Your task to perform on an android device: stop showing notifications on the lock screen Image 0: 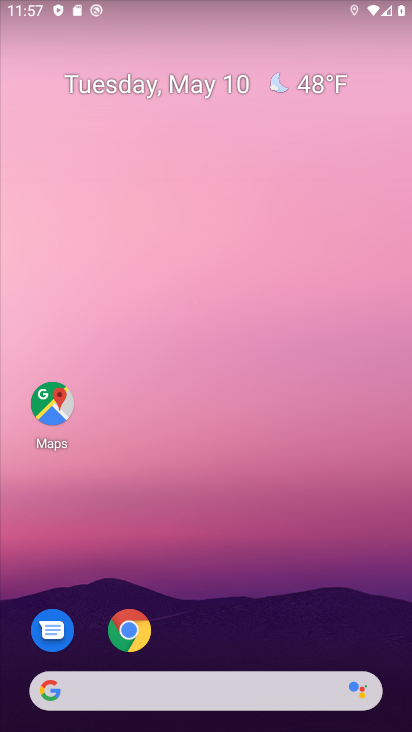
Step 0: drag from (228, 675) to (134, 9)
Your task to perform on an android device: stop showing notifications on the lock screen Image 1: 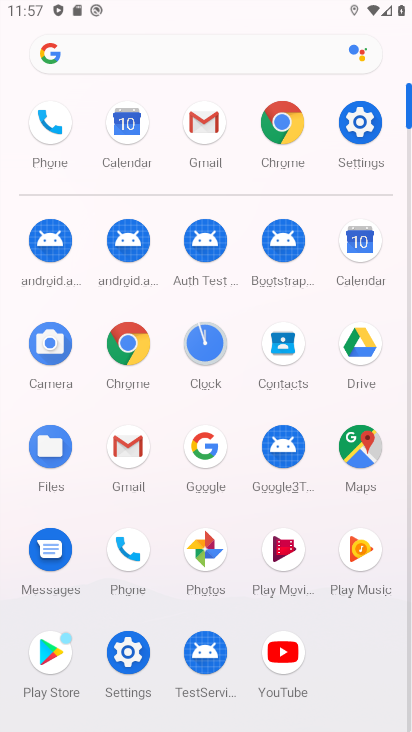
Step 1: click (355, 131)
Your task to perform on an android device: stop showing notifications on the lock screen Image 2: 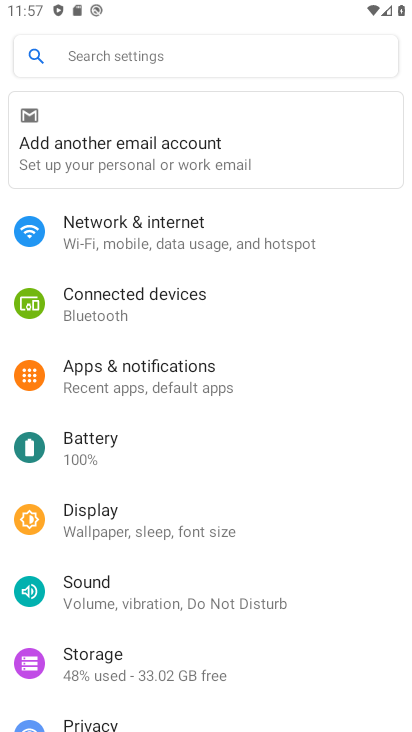
Step 2: click (196, 387)
Your task to perform on an android device: stop showing notifications on the lock screen Image 3: 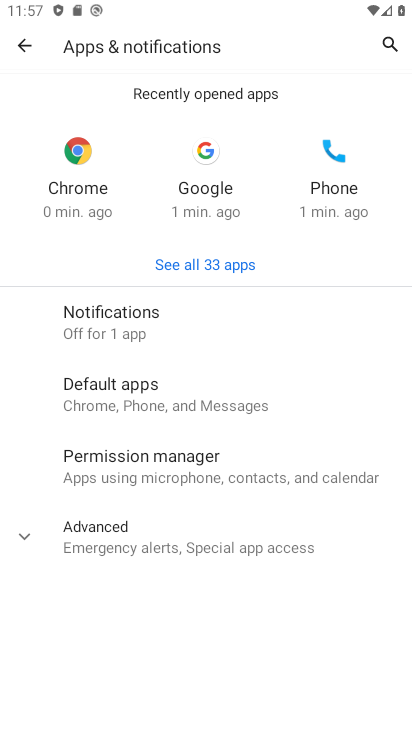
Step 3: click (134, 340)
Your task to perform on an android device: stop showing notifications on the lock screen Image 4: 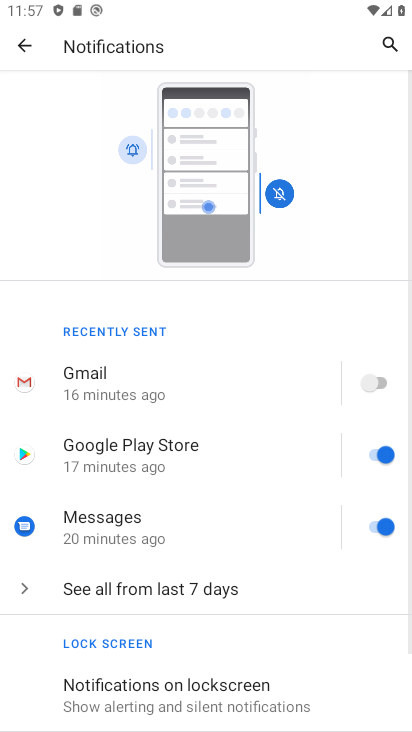
Step 4: click (192, 682)
Your task to perform on an android device: stop showing notifications on the lock screen Image 5: 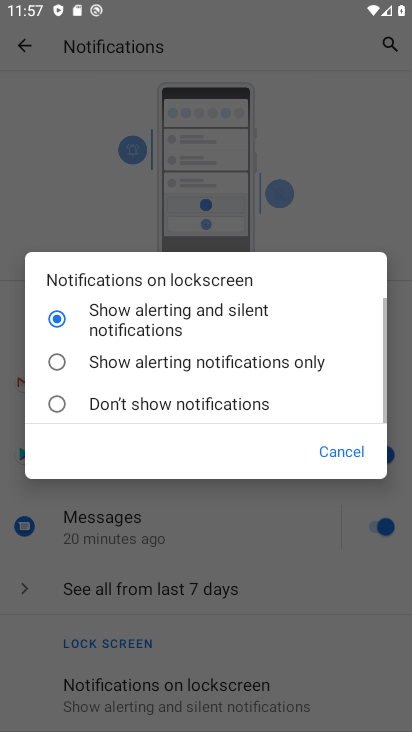
Step 5: click (129, 412)
Your task to perform on an android device: stop showing notifications on the lock screen Image 6: 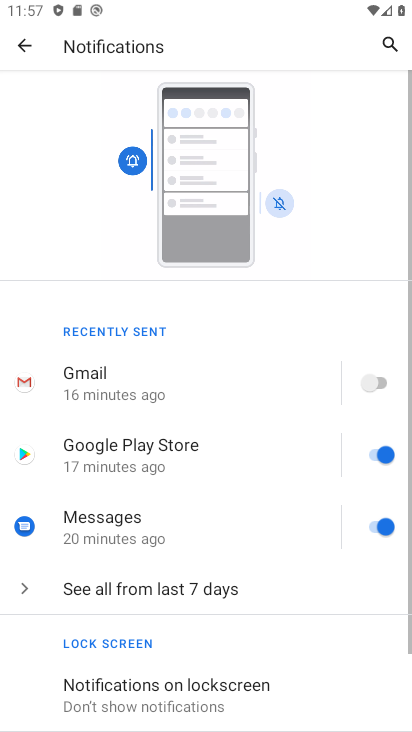
Step 6: task complete